Your task to perform on an android device: Open privacy settings Image 0: 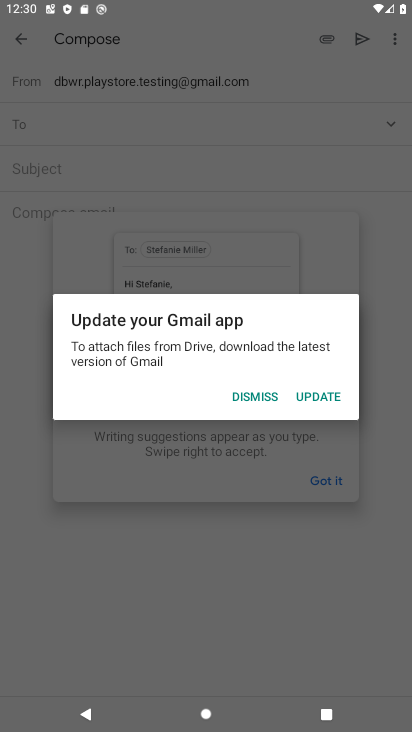
Step 0: press home button
Your task to perform on an android device: Open privacy settings Image 1: 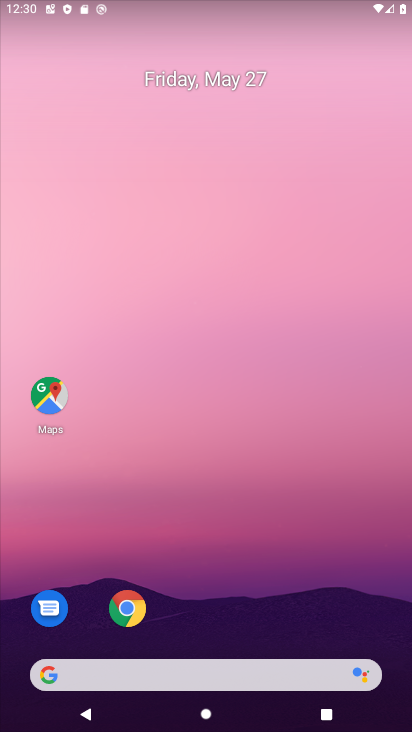
Step 1: drag from (202, 620) to (212, 95)
Your task to perform on an android device: Open privacy settings Image 2: 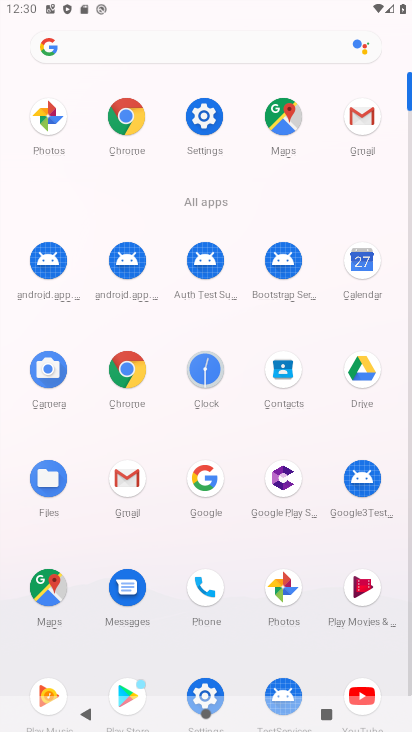
Step 2: click (206, 115)
Your task to perform on an android device: Open privacy settings Image 3: 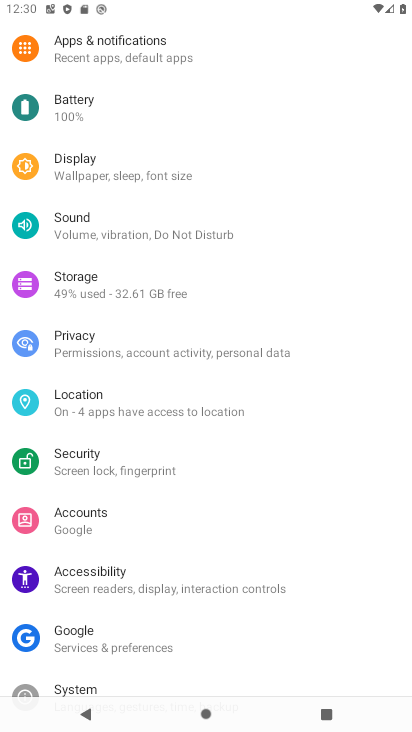
Step 3: click (146, 350)
Your task to perform on an android device: Open privacy settings Image 4: 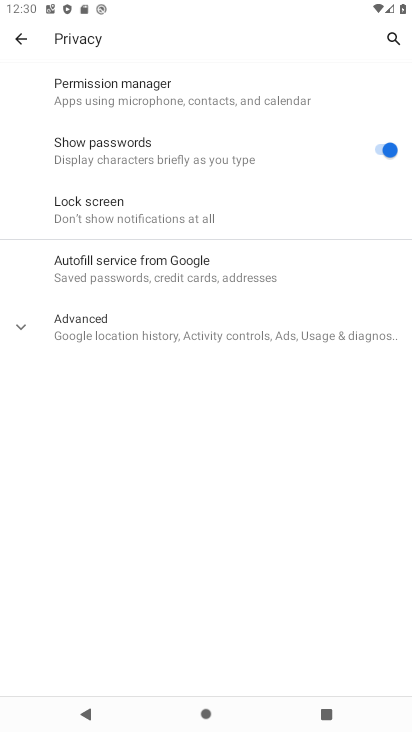
Step 4: task complete